Your task to perform on an android device: Turn off the flashlight Image 0: 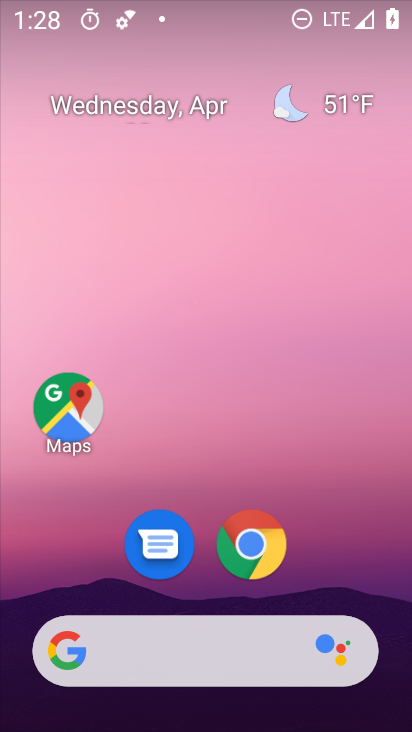
Step 0: drag from (238, 4) to (248, 400)
Your task to perform on an android device: Turn off the flashlight Image 1: 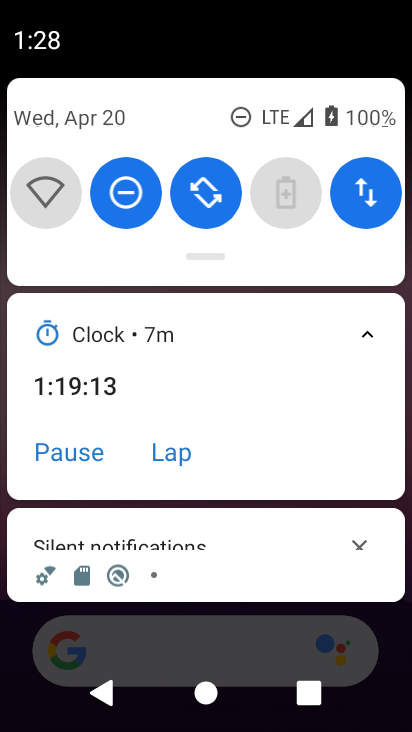
Step 1: drag from (242, 141) to (226, 440)
Your task to perform on an android device: Turn off the flashlight Image 2: 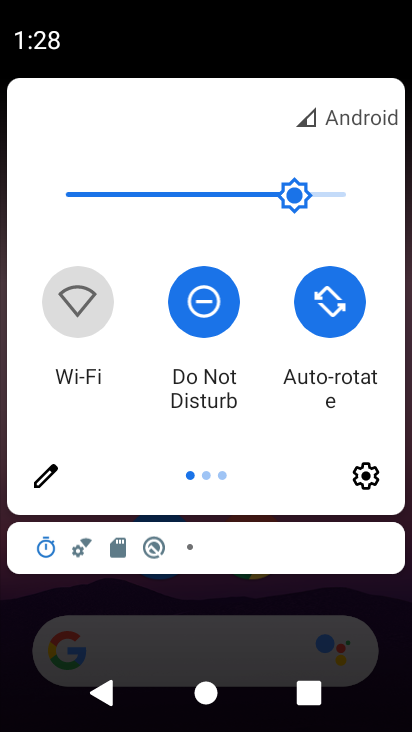
Step 2: click (52, 487)
Your task to perform on an android device: Turn off the flashlight Image 3: 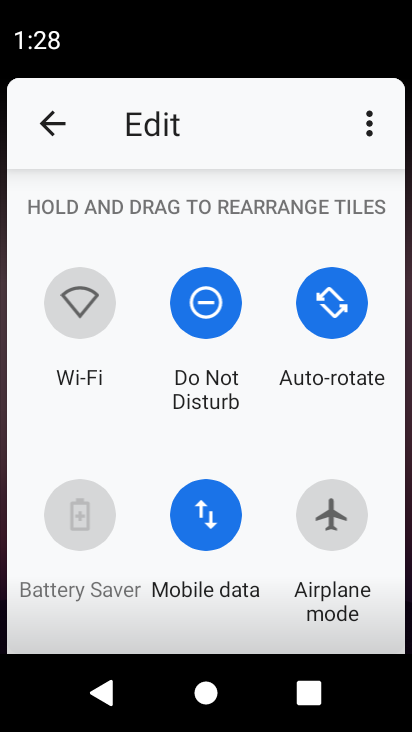
Step 3: task complete